Your task to perform on an android device: Show me productivity apps on the Play Store Image 0: 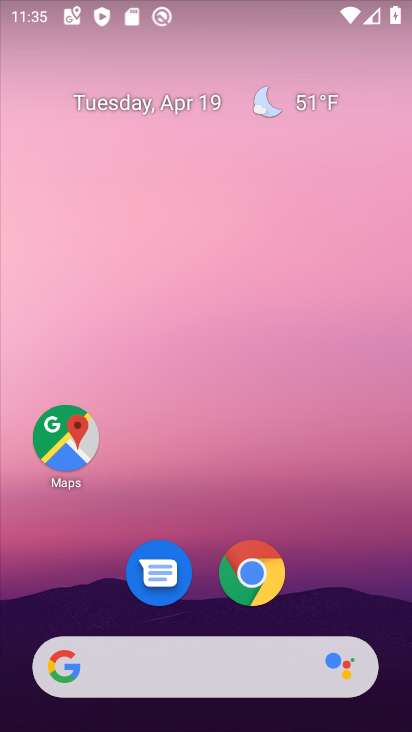
Step 0: drag from (356, 592) to (333, 120)
Your task to perform on an android device: Show me productivity apps on the Play Store Image 1: 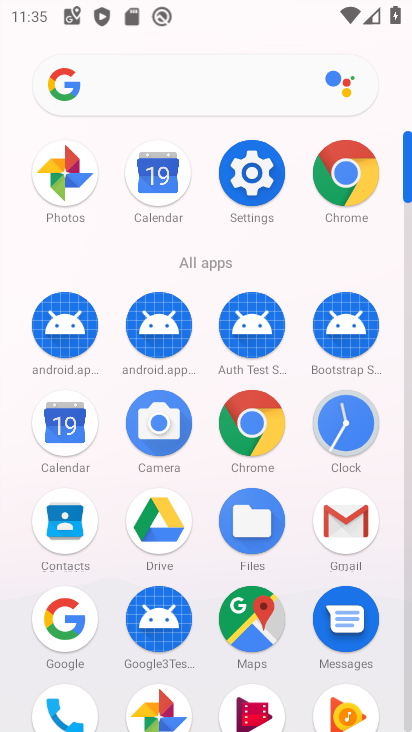
Step 1: drag from (301, 718) to (314, 383)
Your task to perform on an android device: Show me productivity apps on the Play Store Image 2: 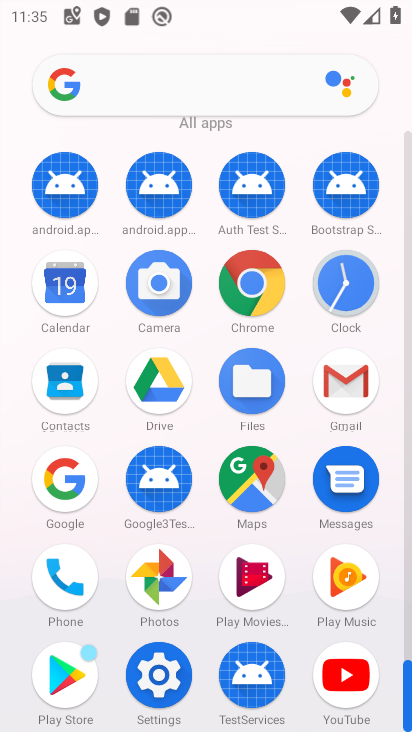
Step 2: click (77, 675)
Your task to perform on an android device: Show me productivity apps on the Play Store Image 3: 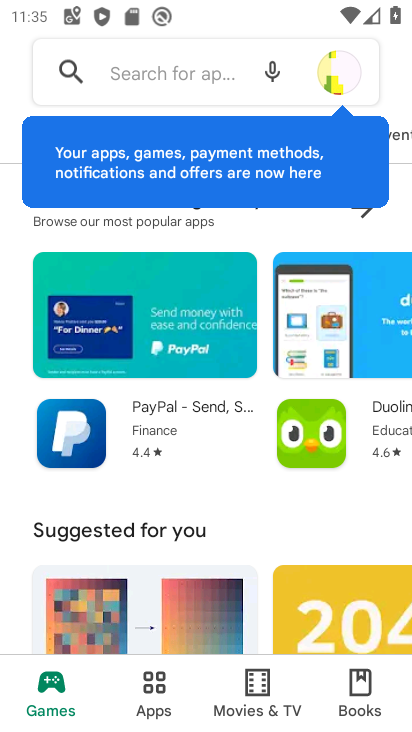
Step 3: click (155, 699)
Your task to perform on an android device: Show me productivity apps on the Play Store Image 4: 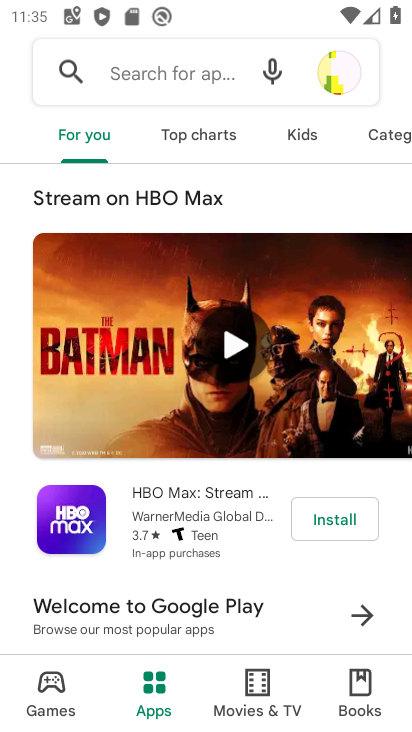
Step 4: click (371, 136)
Your task to perform on an android device: Show me productivity apps on the Play Store Image 5: 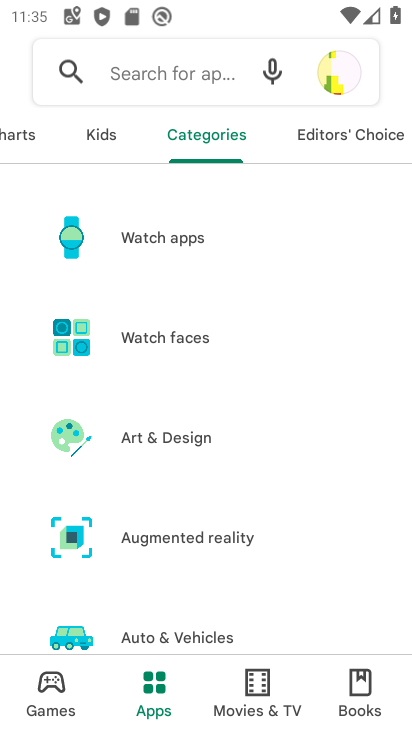
Step 5: drag from (251, 596) to (296, 249)
Your task to perform on an android device: Show me productivity apps on the Play Store Image 6: 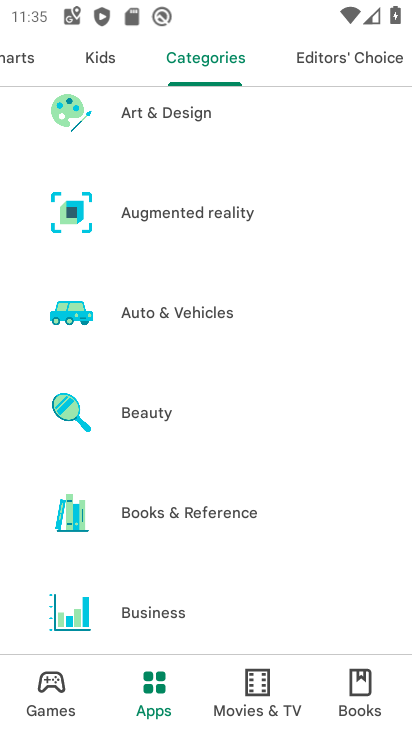
Step 6: drag from (208, 549) to (236, 198)
Your task to perform on an android device: Show me productivity apps on the Play Store Image 7: 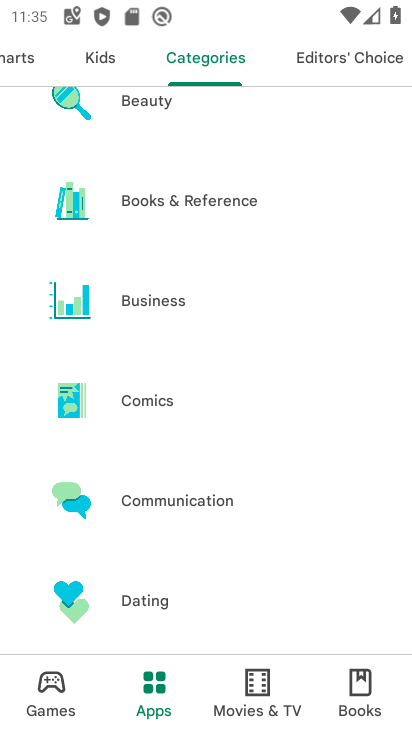
Step 7: drag from (245, 585) to (261, 291)
Your task to perform on an android device: Show me productivity apps on the Play Store Image 8: 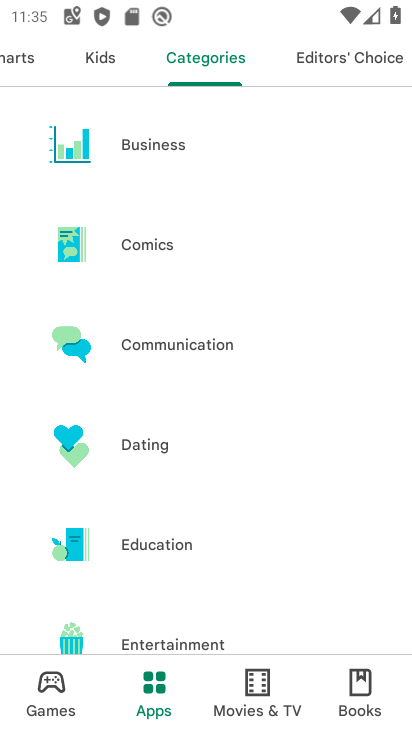
Step 8: drag from (301, 625) to (330, 259)
Your task to perform on an android device: Show me productivity apps on the Play Store Image 9: 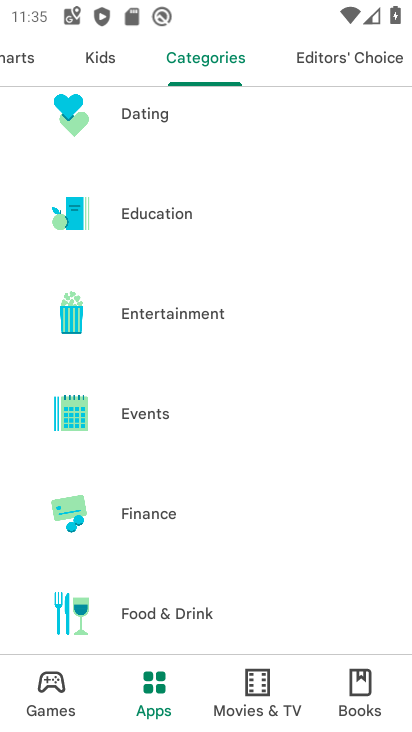
Step 9: drag from (248, 602) to (282, 387)
Your task to perform on an android device: Show me productivity apps on the Play Store Image 10: 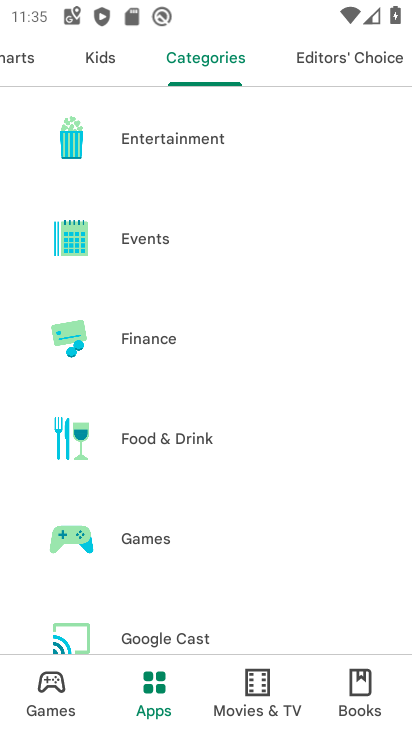
Step 10: drag from (251, 571) to (276, 265)
Your task to perform on an android device: Show me productivity apps on the Play Store Image 11: 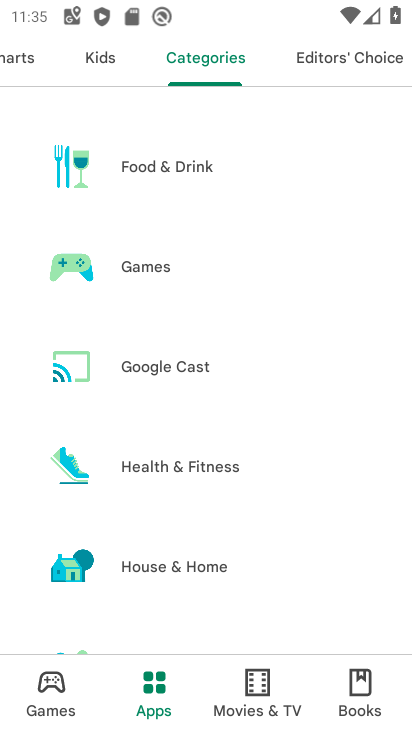
Step 11: drag from (244, 622) to (272, 241)
Your task to perform on an android device: Show me productivity apps on the Play Store Image 12: 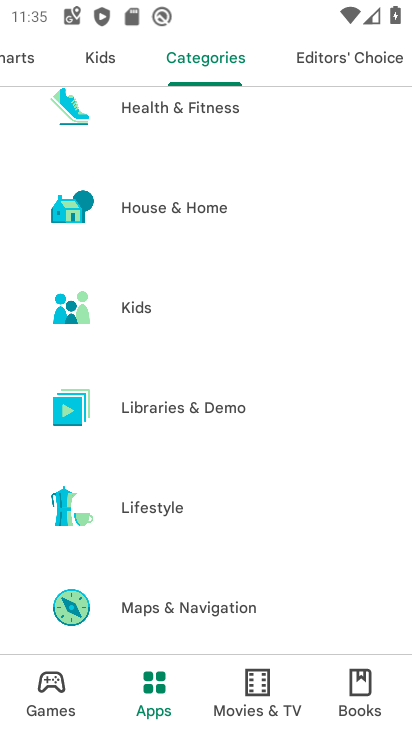
Step 12: drag from (255, 558) to (278, 202)
Your task to perform on an android device: Show me productivity apps on the Play Store Image 13: 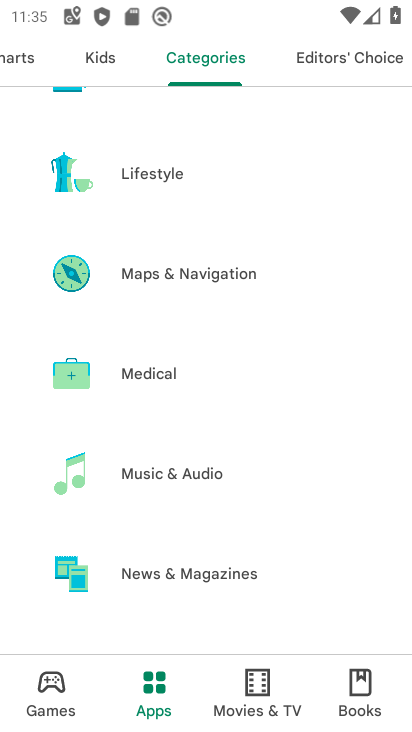
Step 13: drag from (245, 599) to (281, 274)
Your task to perform on an android device: Show me productivity apps on the Play Store Image 14: 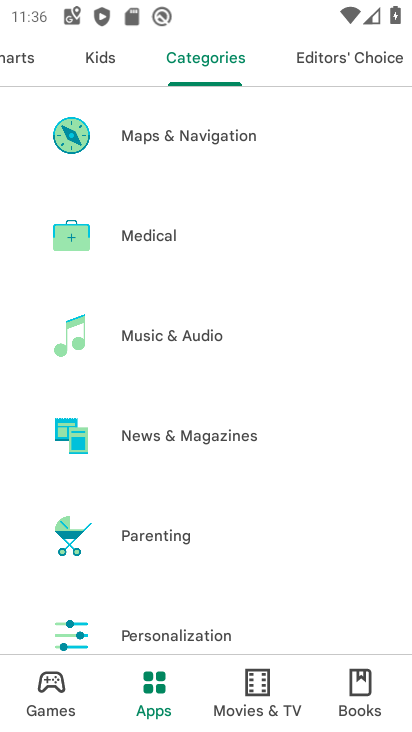
Step 14: drag from (280, 636) to (324, 271)
Your task to perform on an android device: Show me productivity apps on the Play Store Image 15: 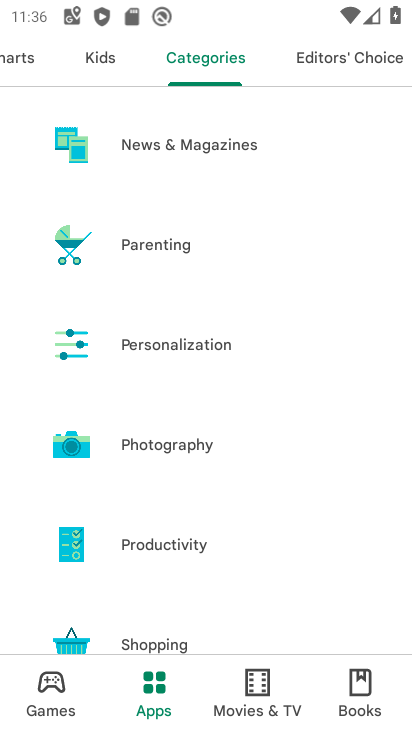
Step 15: click (189, 551)
Your task to perform on an android device: Show me productivity apps on the Play Store Image 16: 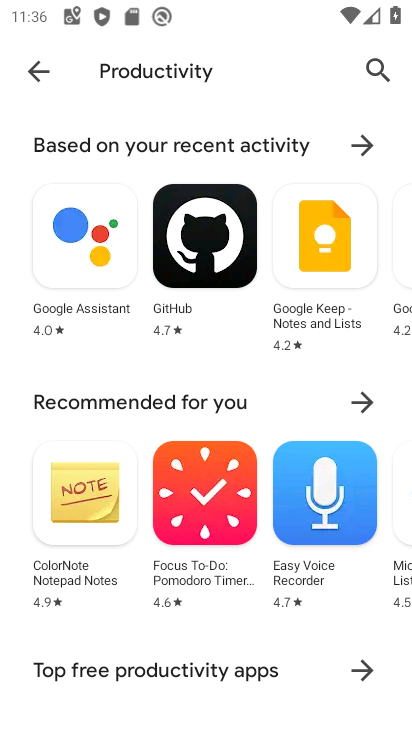
Step 16: task complete